Your task to perform on an android device: When is my next appointment? Image 0: 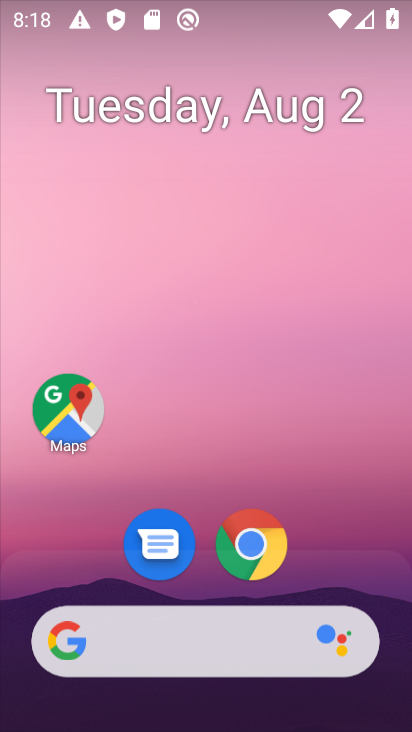
Step 0: drag from (247, 172) to (281, 79)
Your task to perform on an android device: When is my next appointment? Image 1: 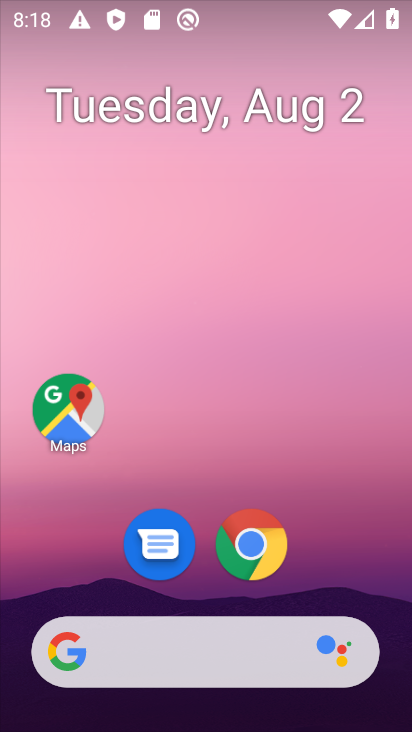
Step 1: drag from (212, 650) to (343, 105)
Your task to perform on an android device: When is my next appointment? Image 2: 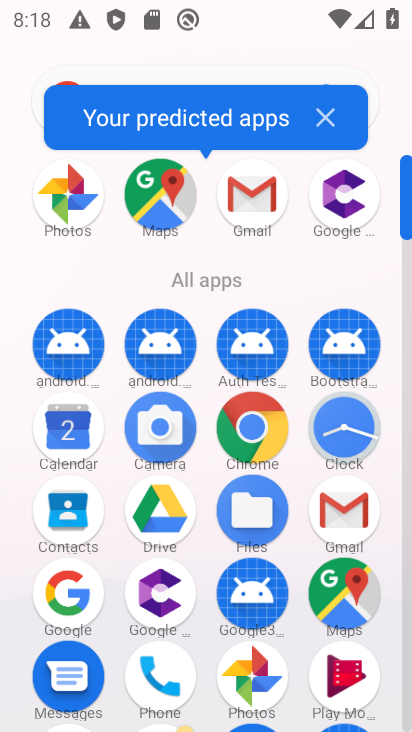
Step 2: click (68, 437)
Your task to perform on an android device: When is my next appointment? Image 3: 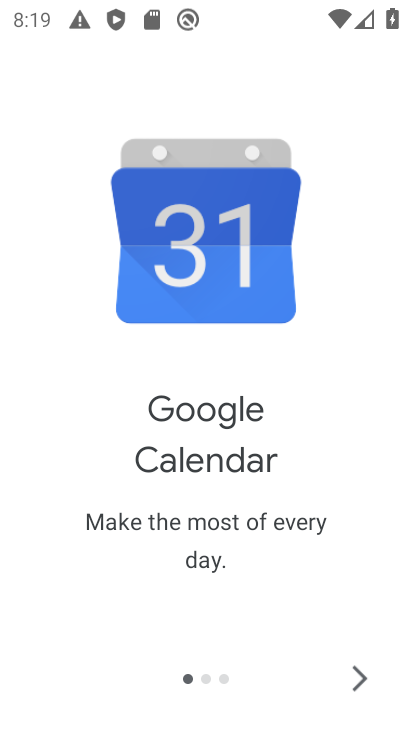
Step 3: click (358, 666)
Your task to perform on an android device: When is my next appointment? Image 4: 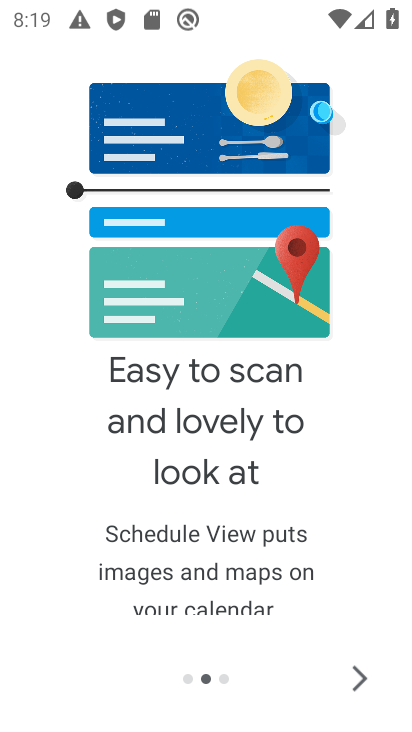
Step 4: click (358, 667)
Your task to perform on an android device: When is my next appointment? Image 5: 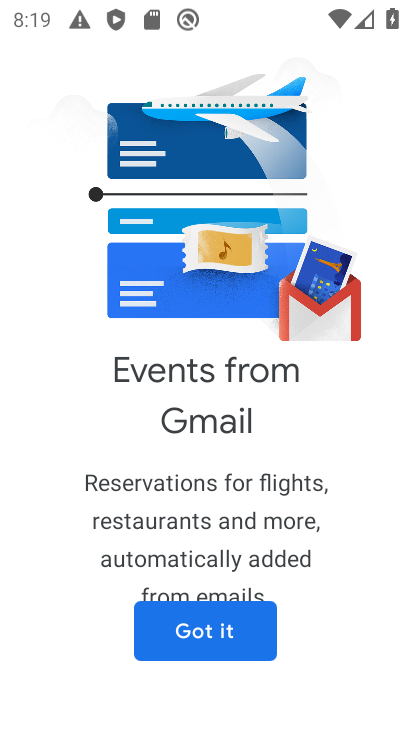
Step 5: click (253, 635)
Your task to perform on an android device: When is my next appointment? Image 6: 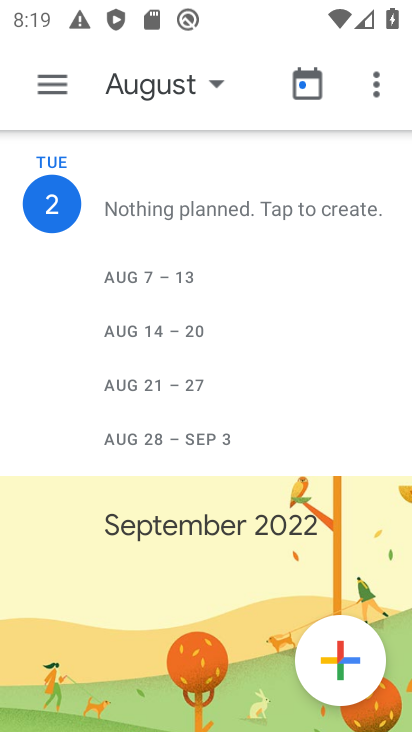
Step 6: click (148, 87)
Your task to perform on an android device: When is my next appointment? Image 7: 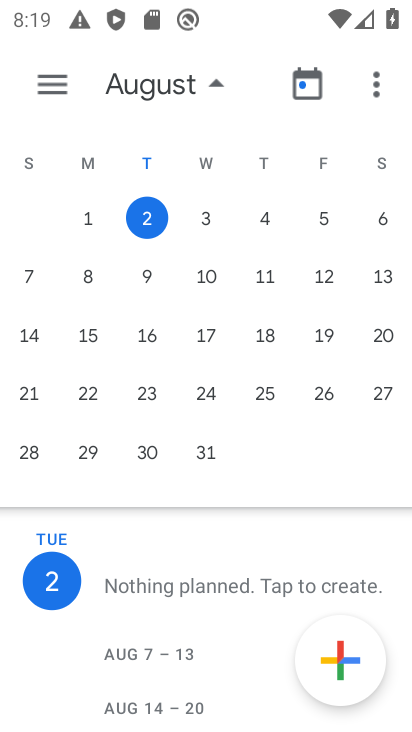
Step 7: click (61, 92)
Your task to perform on an android device: When is my next appointment? Image 8: 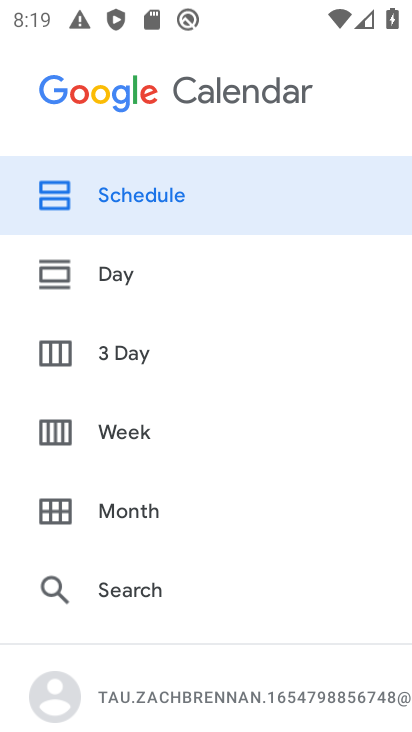
Step 8: click (124, 427)
Your task to perform on an android device: When is my next appointment? Image 9: 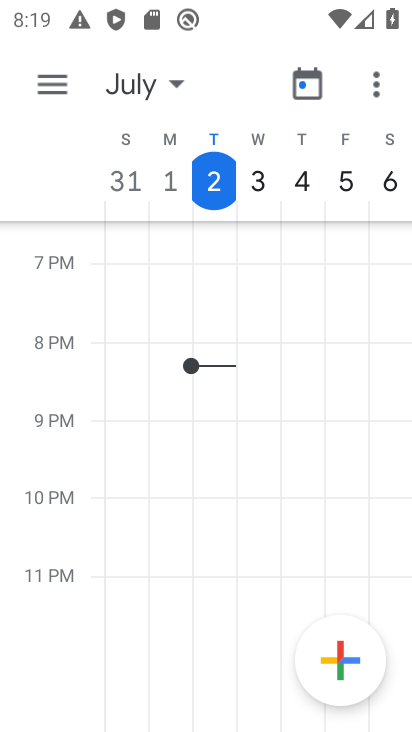
Step 9: click (55, 81)
Your task to perform on an android device: When is my next appointment? Image 10: 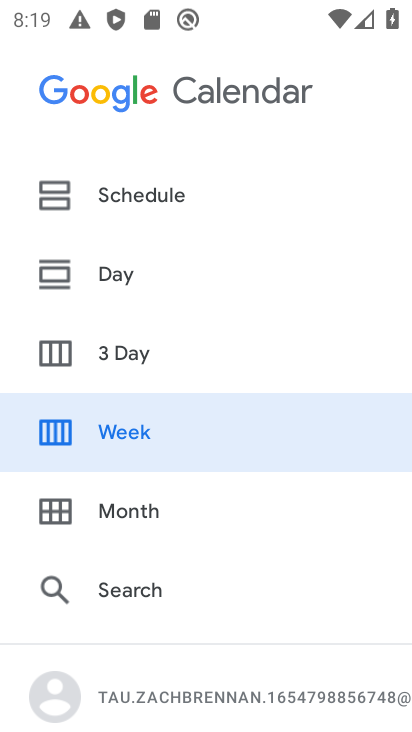
Step 10: click (137, 196)
Your task to perform on an android device: When is my next appointment? Image 11: 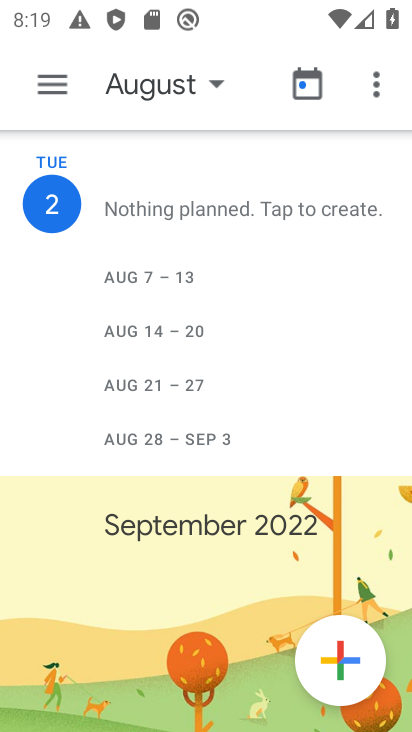
Step 11: task complete